Your task to perform on an android device: Open the calendar and show me this week's events Image 0: 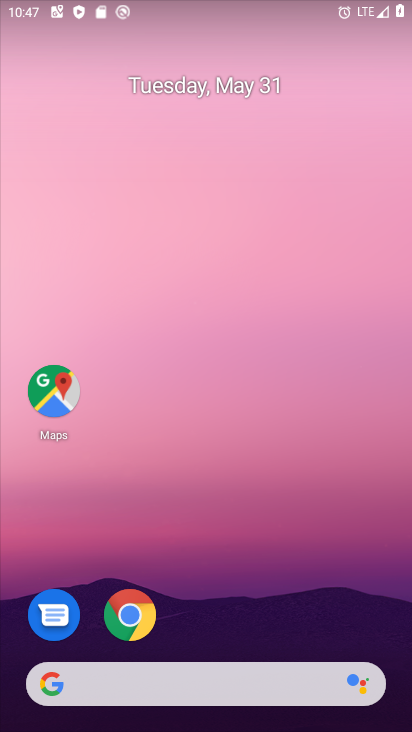
Step 0: drag from (275, 512) to (407, 235)
Your task to perform on an android device: Open the calendar and show me this week's events Image 1: 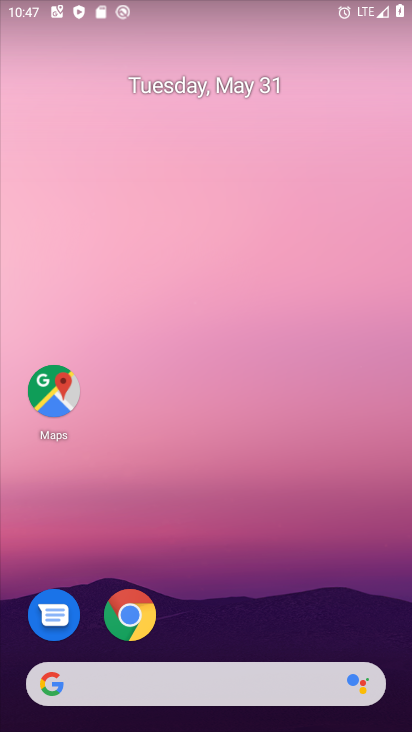
Step 1: drag from (313, 592) to (41, 8)
Your task to perform on an android device: Open the calendar and show me this week's events Image 2: 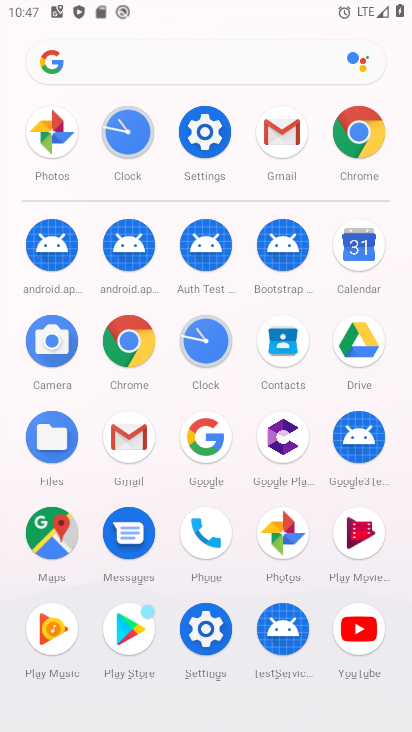
Step 2: click (355, 263)
Your task to perform on an android device: Open the calendar and show me this week's events Image 3: 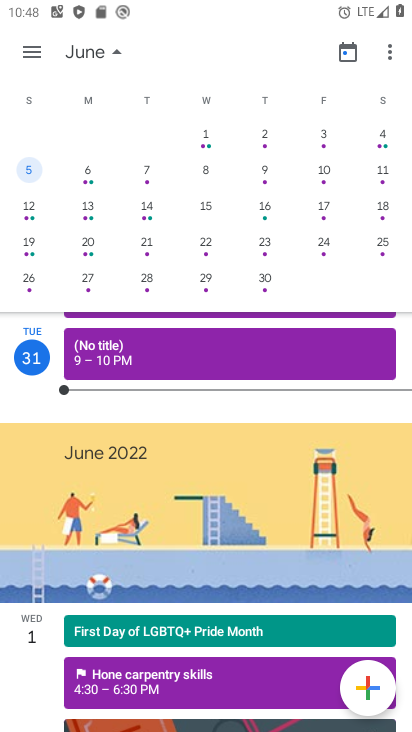
Step 3: drag from (325, 244) to (7, 239)
Your task to perform on an android device: Open the calendar and show me this week's events Image 4: 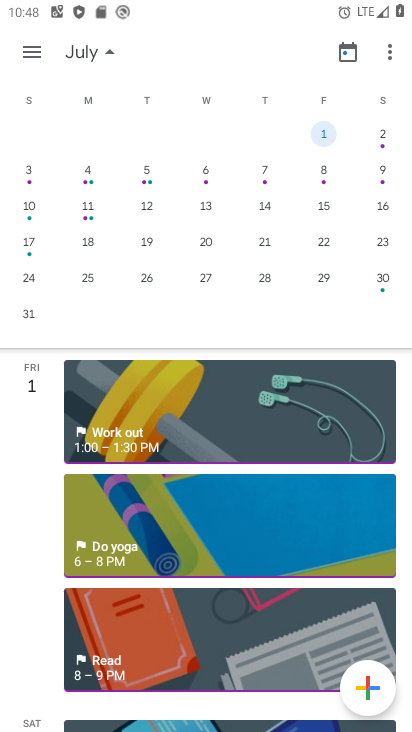
Step 4: click (94, 183)
Your task to perform on an android device: Open the calendar and show me this week's events Image 5: 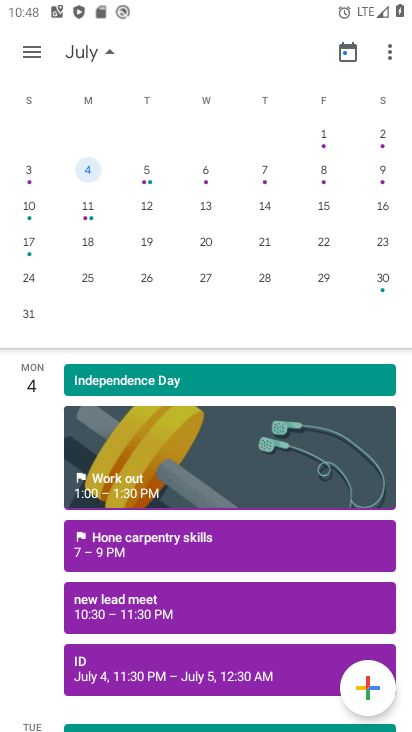
Step 5: task complete